Your task to perform on an android device: Open calendar and show me the fourth week of next month Image 0: 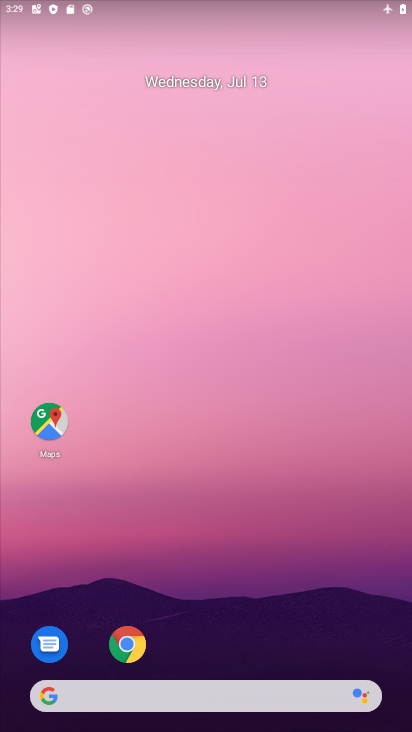
Step 0: drag from (278, 635) to (221, 69)
Your task to perform on an android device: Open calendar and show me the fourth week of next month Image 1: 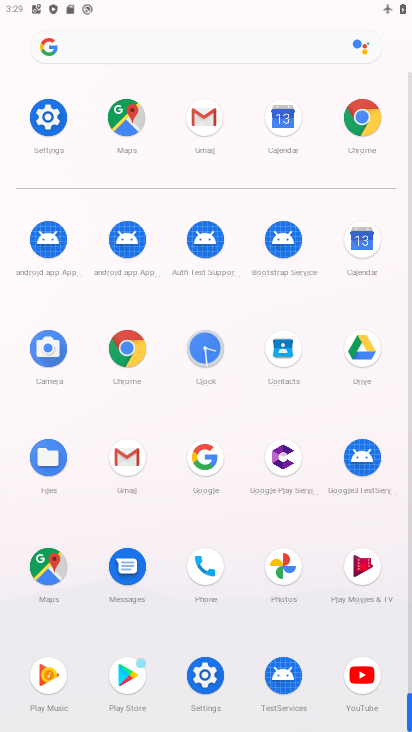
Step 1: click (365, 233)
Your task to perform on an android device: Open calendar and show me the fourth week of next month Image 2: 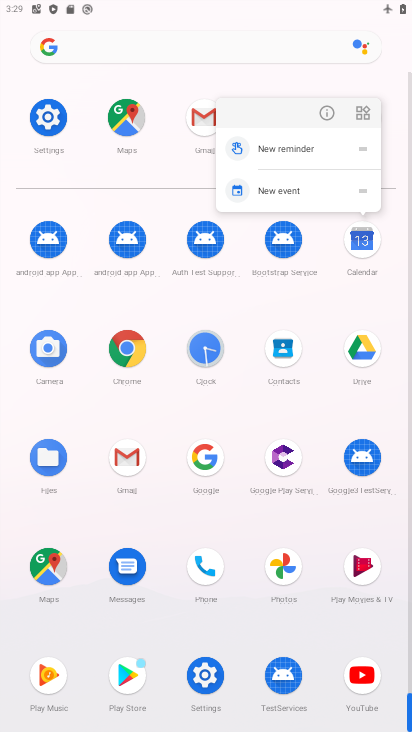
Step 2: click (357, 251)
Your task to perform on an android device: Open calendar and show me the fourth week of next month Image 3: 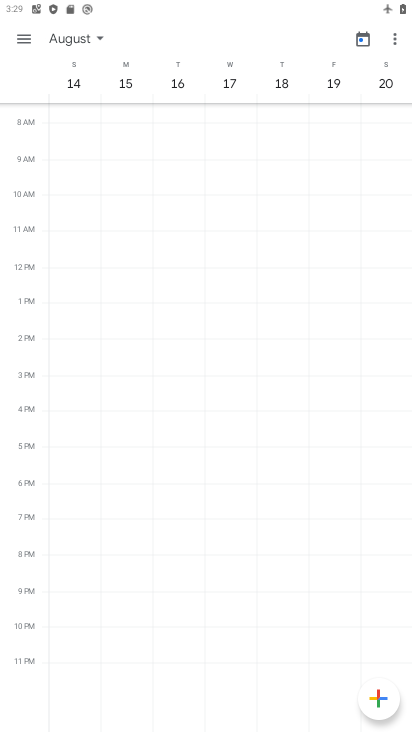
Step 3: click (283, 76)
Your task to perform on an android device: Open calendar and show me the fourth week of next month Image 4: 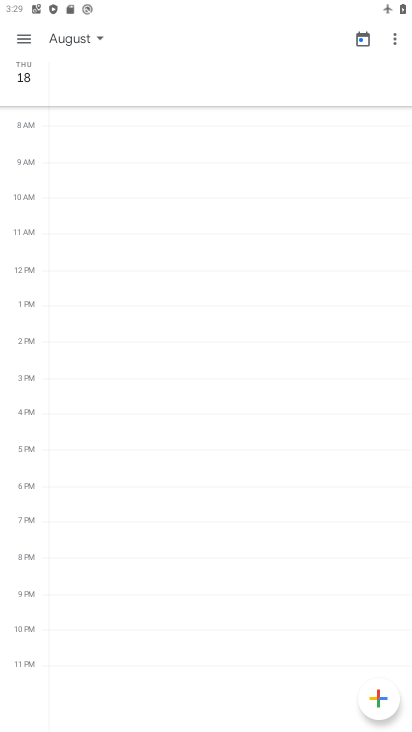
Step 4: click (83, 43)
Your task to perform on an android device: Open calendar and show me the fourth week of next month Image 5: 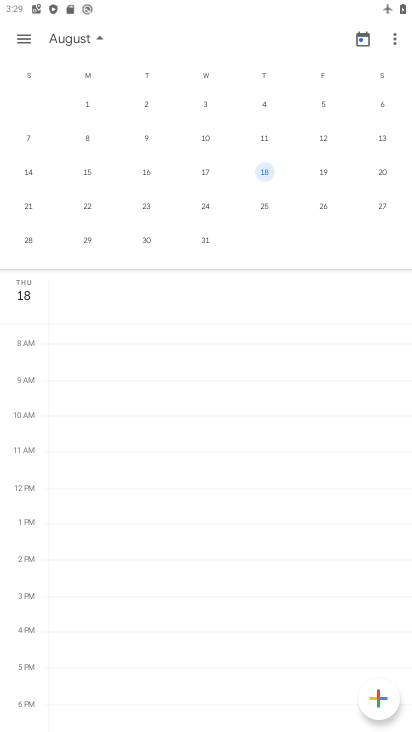
Step 5: click (147, 207)
Your task to perform on an android device: Open calendar and show me the fourth week of next month Image 6: 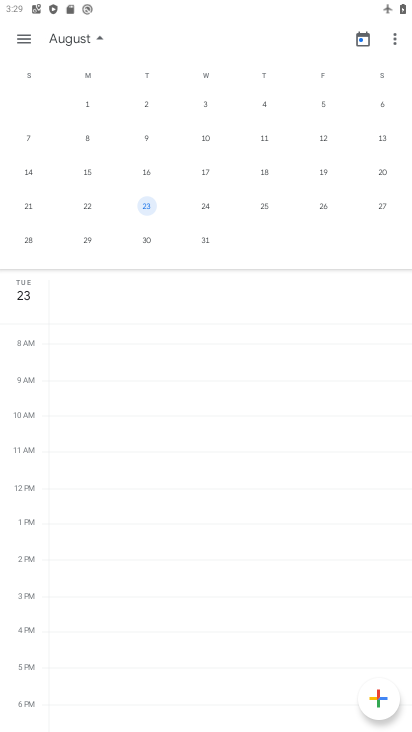
Step 6: click (19, 37)
Your task to perform on an android device: Open calendar and show me the fourth week of next month Image 7: 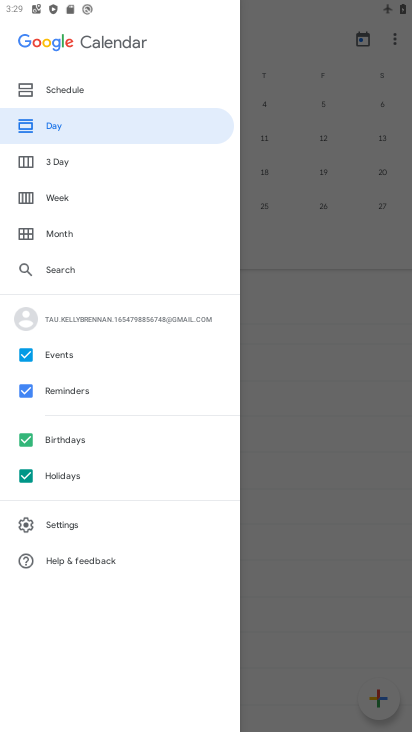
Step 7: click (58, 198)
Your task to perform on an android device: Open calendar and show me the fourth week of next month Image 8: 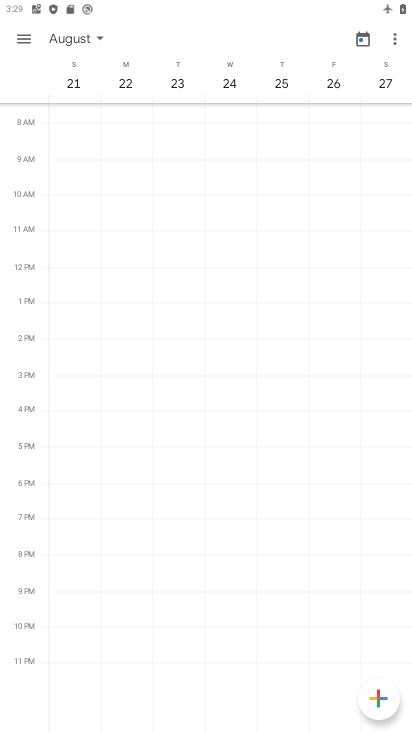
Step 8: task complete